Your task to perform on an android device: turn pop-ups off in chrome Image 0: 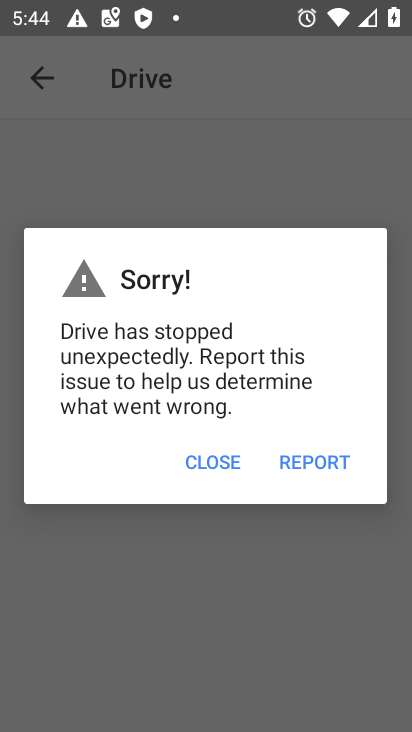
Step 0: press home button
Your task to perform on an android device: turn pop-ups off in chrome Image 1: 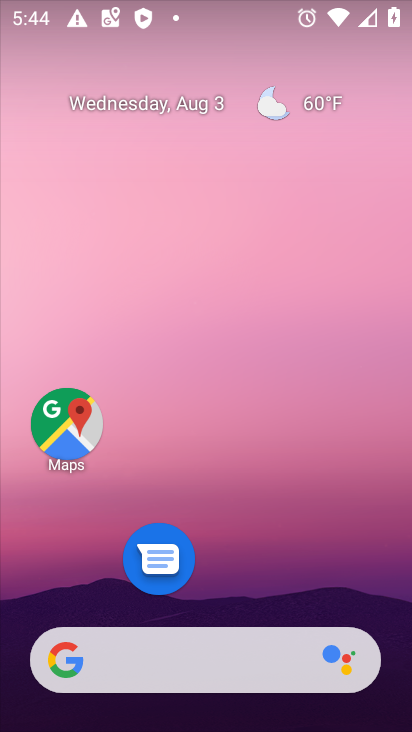
Step 1: drag from (243, 610) to (248, 84)
Your task to perform on an android device: turn pop-ups off in chrome Image 2: 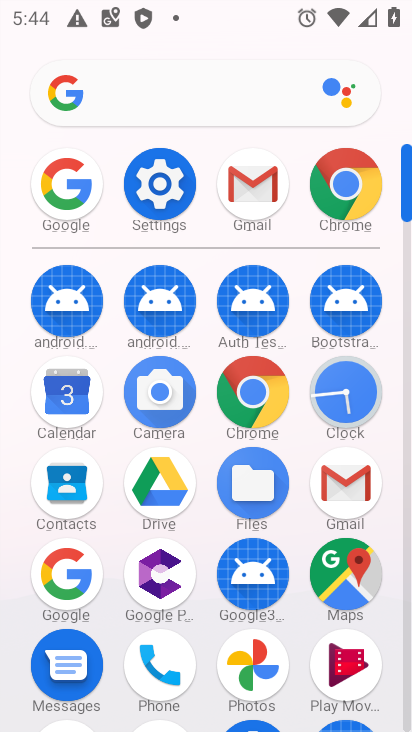
Step 2: click (339, 191)
Your task to perform on an android device: turn pop-ups off in chrome Image 3: 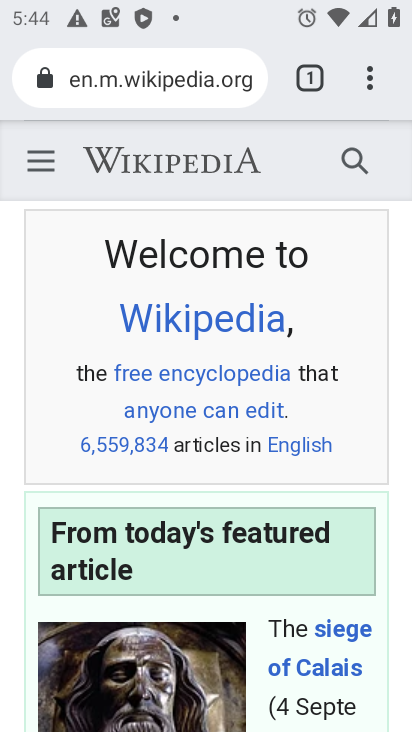
Step 3: click (364, 68)
Your task to perform on an android device: turn pop-ups off in chrome Image 4: 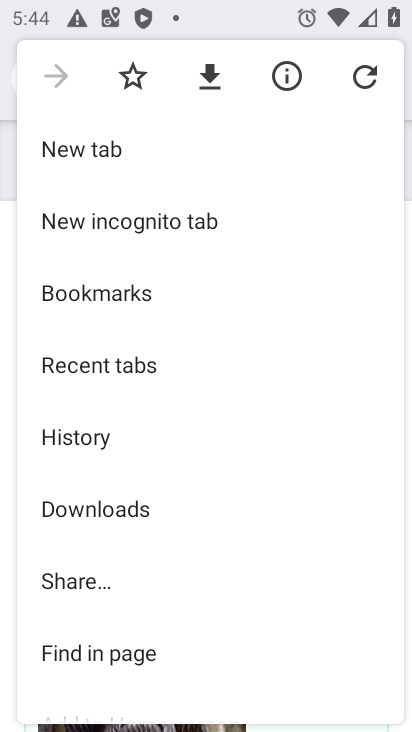
Step 4: drag from (135, 676) to (141, 263)
Your task to perform on an android device: turn pop-ups off in chrome Image 5: 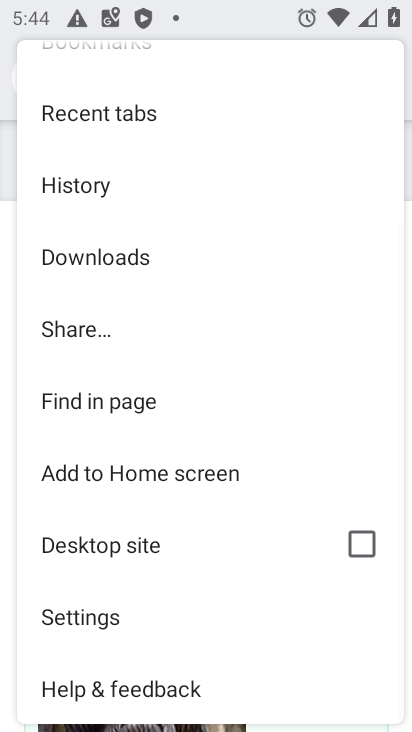
Step 5: click (89, 621)
Your task to perform on an android device: turn pop-ups off in chrome Image 6: 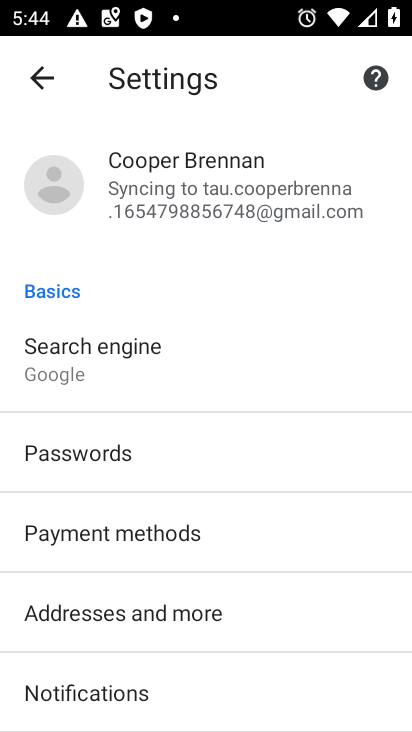
Step 6: drag from (112, 719) to (145, 315)
Your task to perform on an android device: turn pop-ups off in chrome Image 7: 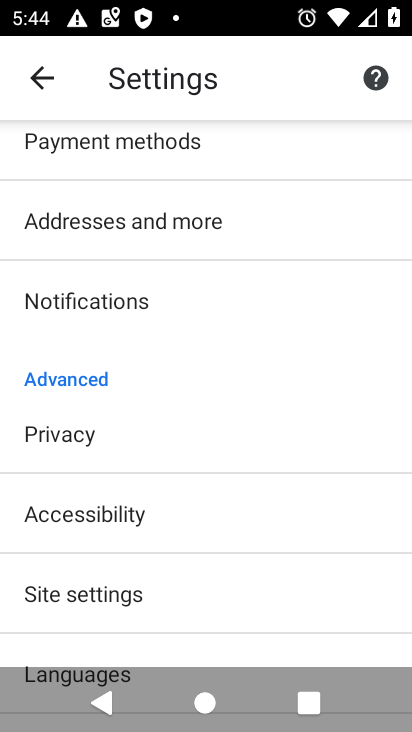
Step 7: click (95, 598)
Your task to perform on an android device: turn pop-ups off in chrome Image 8: 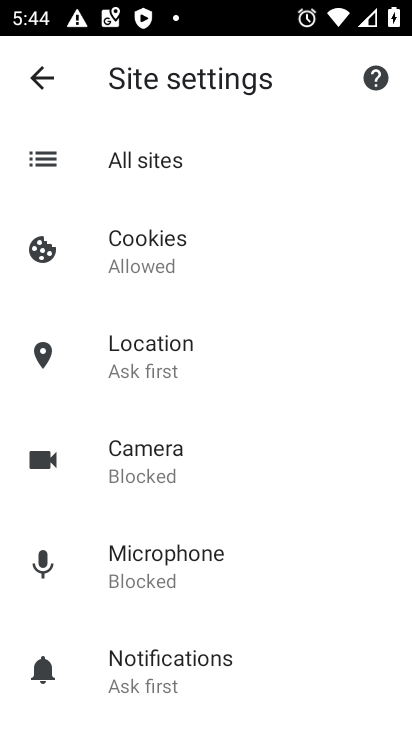
Step 8: drag from (162, 693) to (161, 335)
Your task to perform on an android device: turn pop-ups off in chrome Image 9: 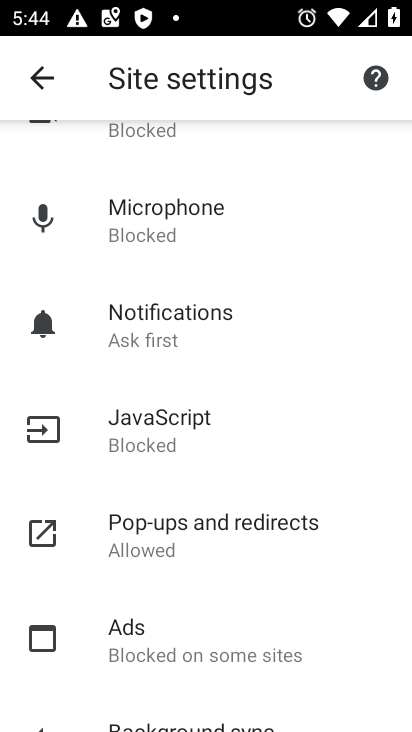
Step 9: click (171, 535)
Your task to perform on an android device: turn pop-ups off in chrome Image 10: 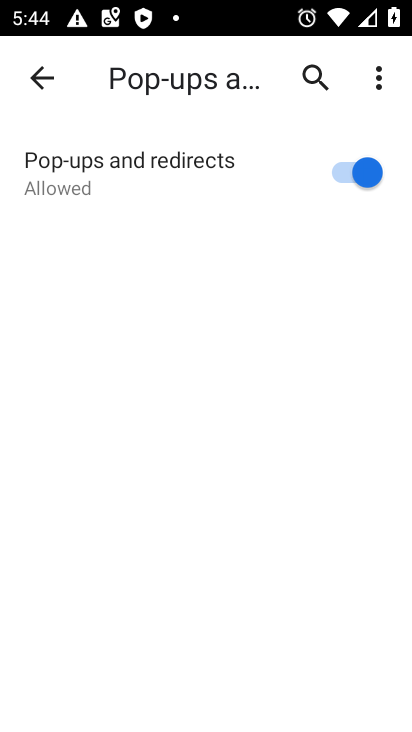
Step 10: click (340, 173)
Your task to perform on an android device: turn pop-ups off in chrome Image 11: 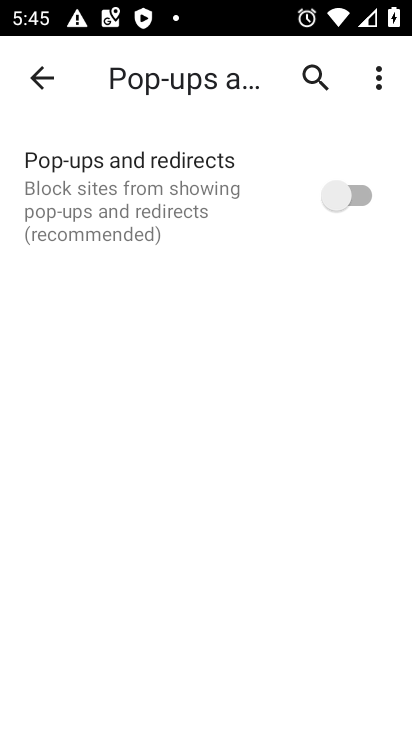
Step 11: task complete